Your task to perform on an android device: Open maps Image 0: 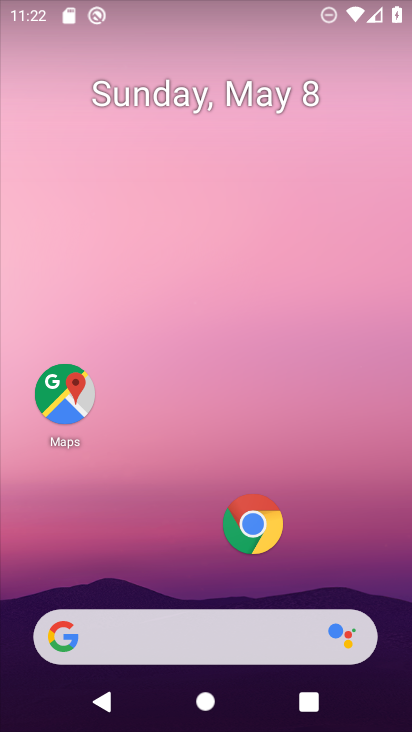
Step 0: click (59, 394)
Your task to perform on an android device: Open maps Image 1: 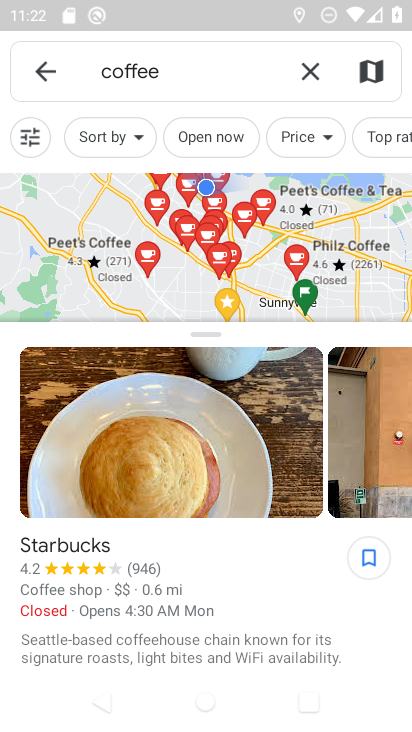
Step 1: click (306, 71)
Your task to perform on an android device: Open maps Image 2: 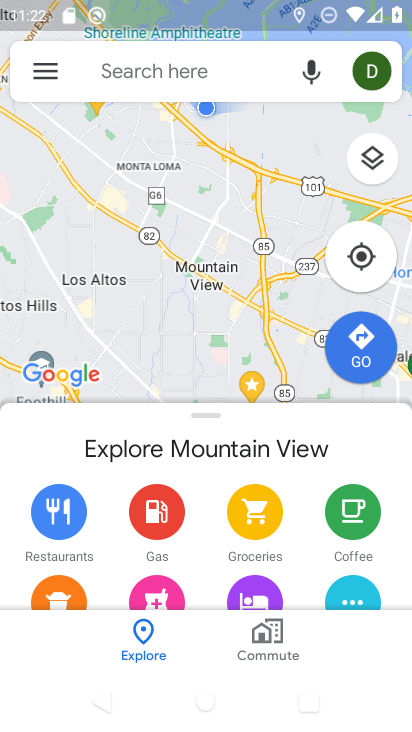
Step 2: task complete